Your task to perform on an android device: toggle wifi Image 0: 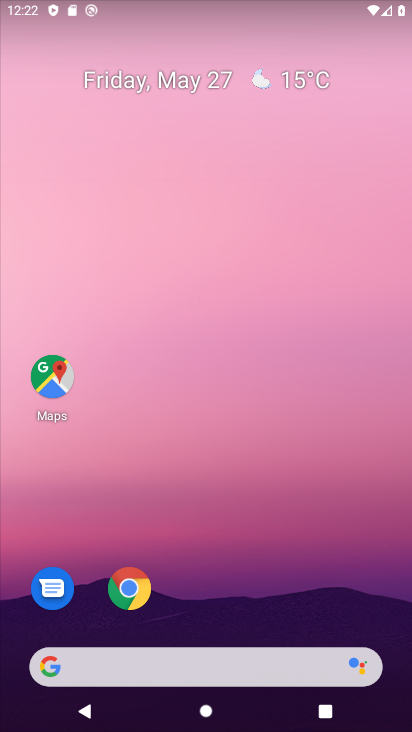
Step 0: drag from (387, 621) to (332, 49)
Your task to perform on an android device: toggle wifi Image 1: 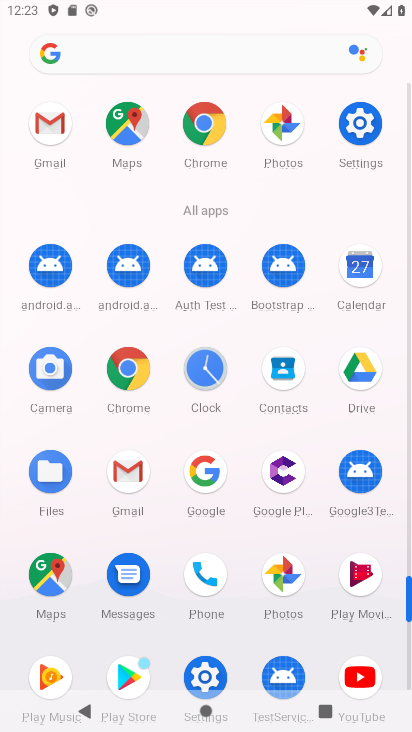
Step 1: click (204, 672)
Your task to perform on an android device: toggle wifi Image 2: 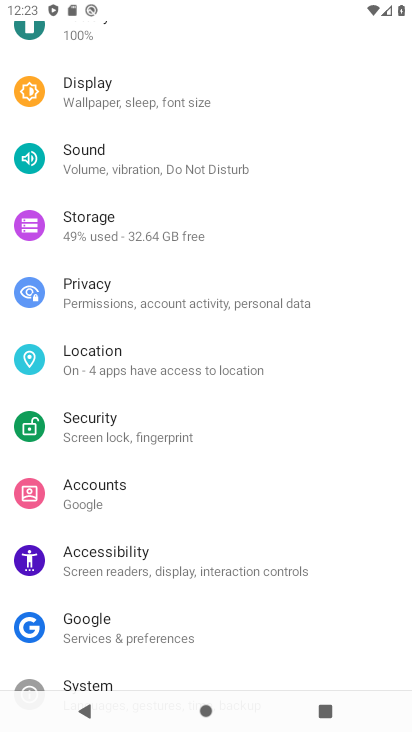
Step 2: drag from (385, 80) to (331, 373)
Your task to perform on an android device: toggle wifi Image 3: 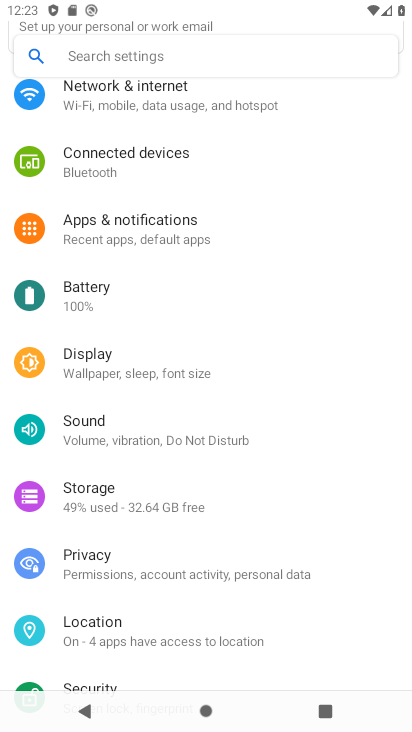
Step 3: click (105, 96)
Your task to perform on an android device: toggle wifi Image 4: 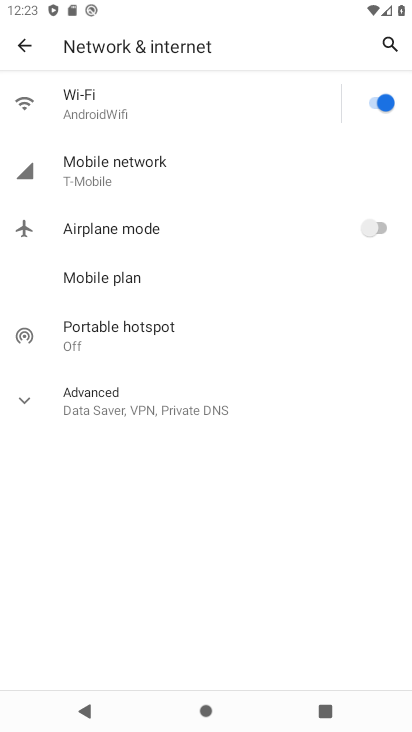
Step 4: click (365, 100)
Your task to perform on an android device: toggle wifi Image 5: 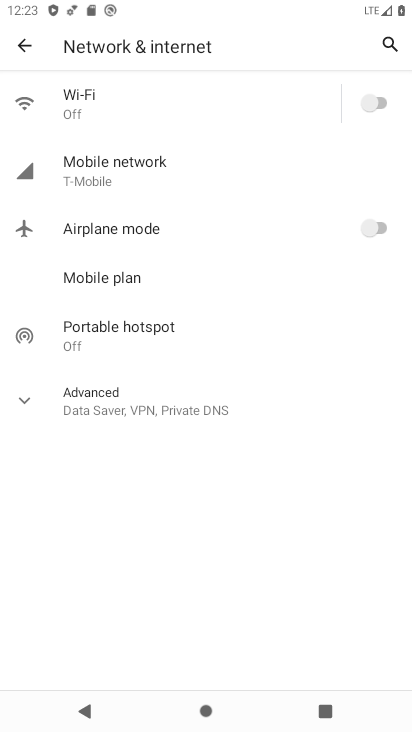
Step 5: task complete